Your task to perform on an android device: Go to settings Image 0: 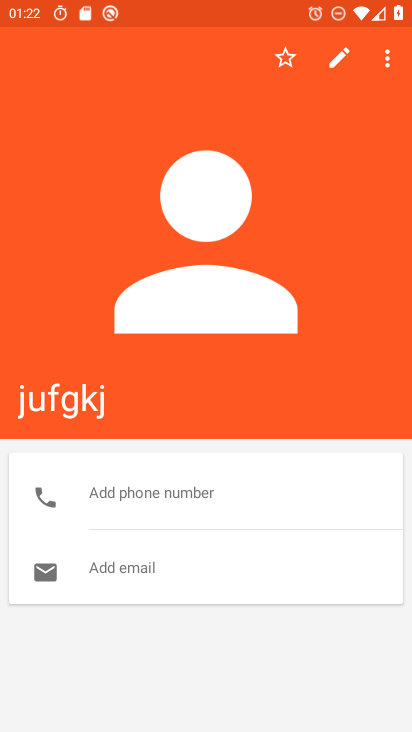
Step 0: press home button
Your task to perform on an android device: Go to settings Image 1: 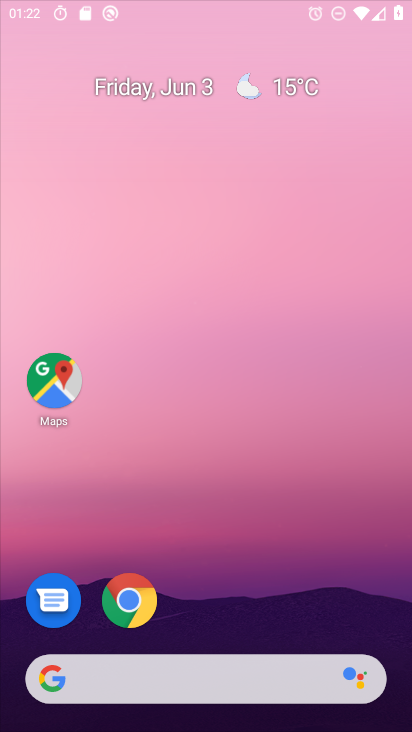
Step 1: drag from (229, 600) to (225, 107)
Your task to perform on an android device: Go to settings Image 2: 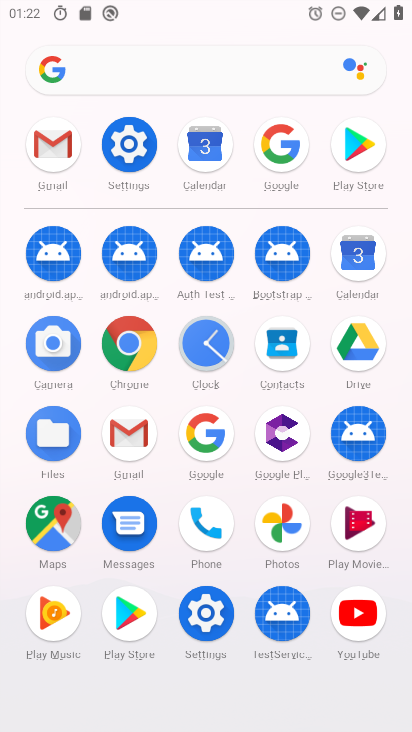
Step 2: click (138, 149)
Your task to perform on an android device: Go to settings Image 3: 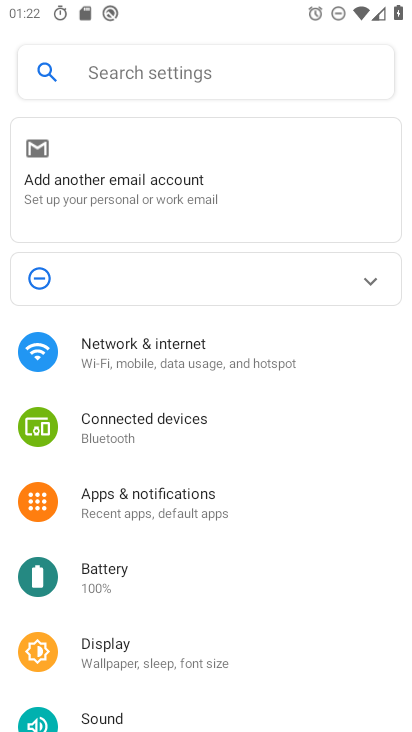
Step 3: task complete